Your task to perform on an android device: What is the news today? Image 0: 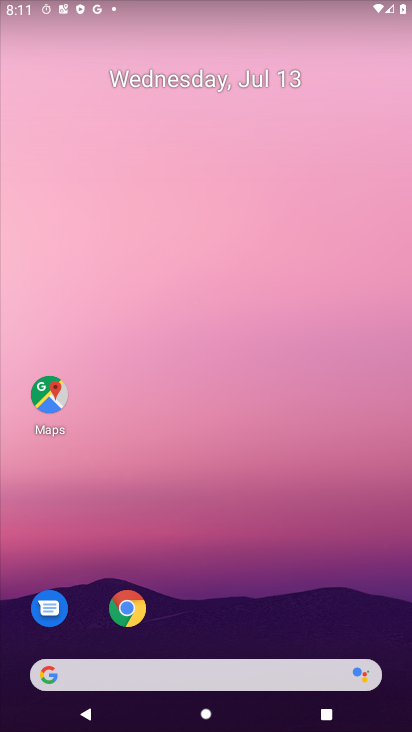
Step 0: drag from (292, 709) to (155, 286)
Your task to perform on an android device: What is the news today? Image 1: 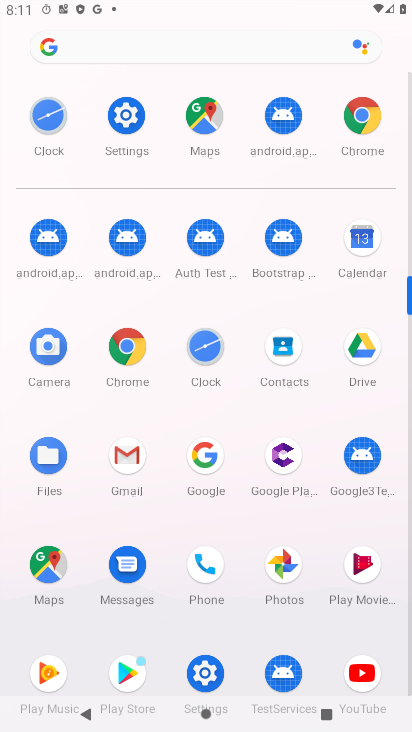
Step 1: click (125, 113)
Your task to perform on an android device: What is the news today? Image 2: 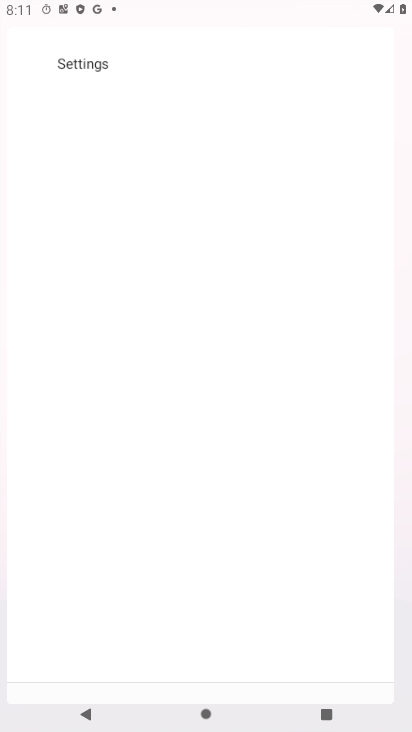
Step 2: click (127, 115)
Your task to perform on an android device: What is the news today? Image 3: 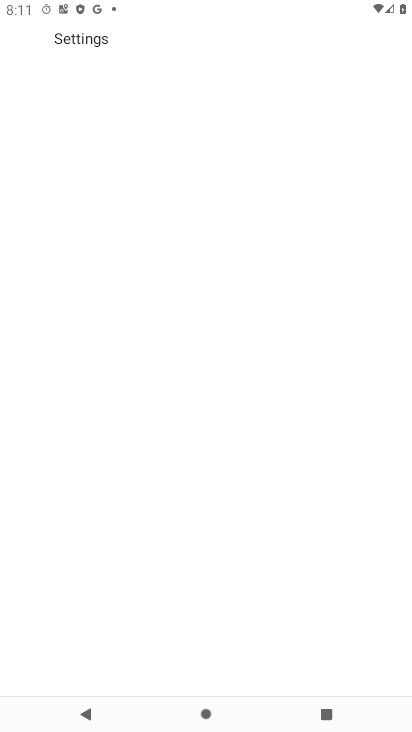
Step 3: click (128, 116)
Your task to perform on an android device: What is the news today? Image 4: 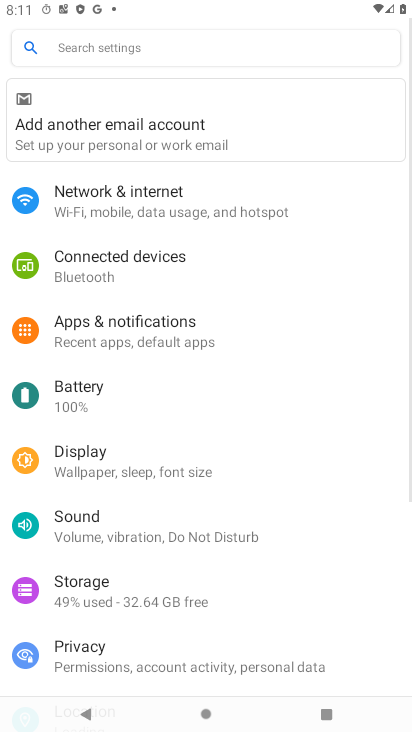
Step 4: drag from (131, 100) to (131, 427)
Your task to perform on an android device: What is the news today? Image 5: 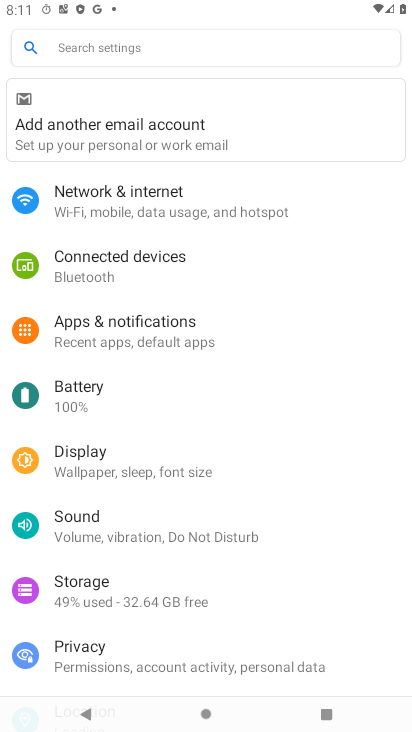
Step 5: press back button
Your task to perform on an android device: What is the news today? Image 6: 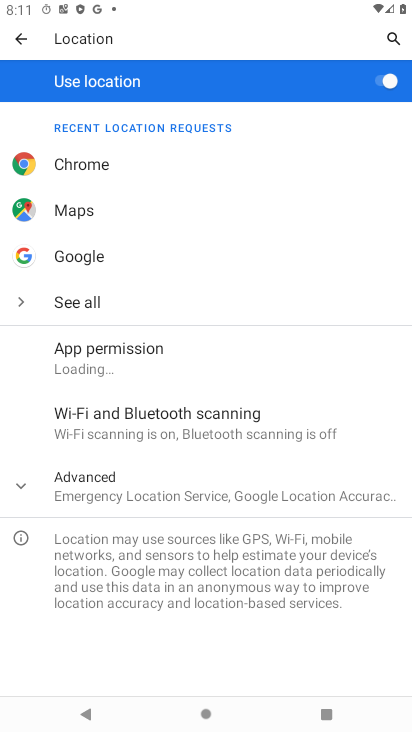
Step 6: click (13, 39)
Your task to perform on an android device: What is the news today? Image 7: 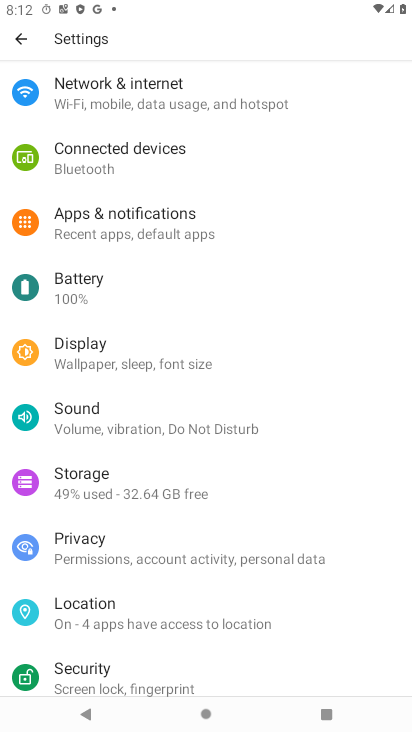
Step 7: click (16, 32)
Your task to perform on an android device: What is the news today? Image 8: 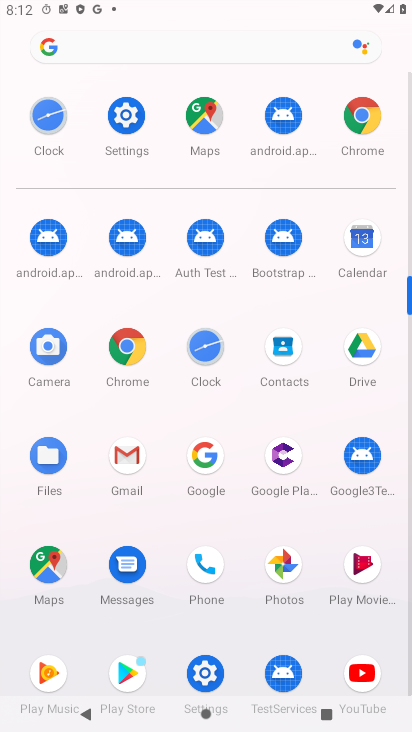
Step 8: click (359, 108)
Your task to perform on an android device: What is the news today? Image 9: 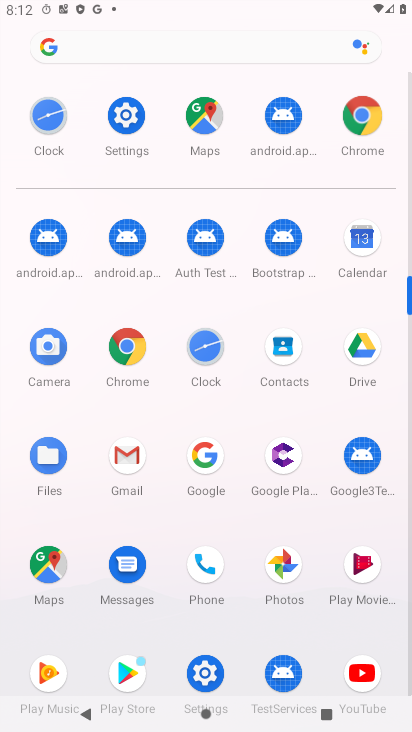
Step 9: click (358, 125)
Your task to perform on an android device: What is the news today? Image 10: 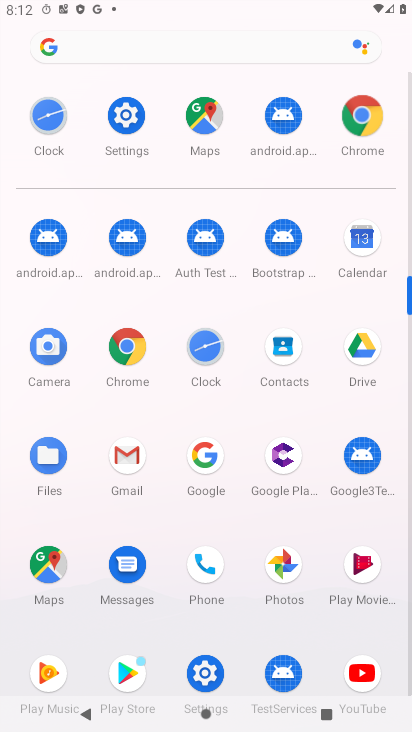
Step 10: click (352, 127)
Your task to perform on an android device: What is the news today? Image 11: 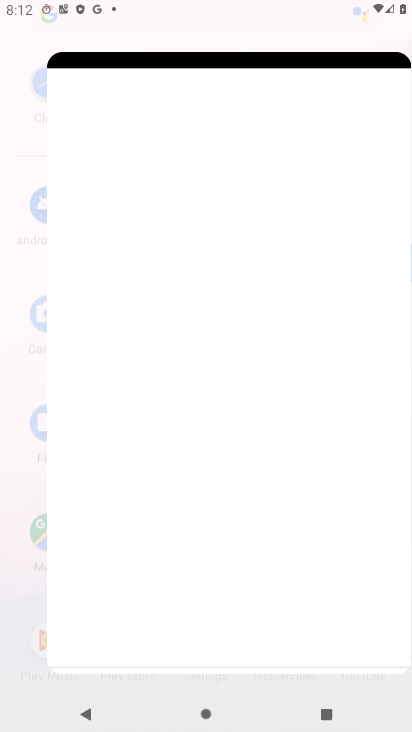
Step 11: click (346, 123)
Your task to perform on an android device: What is the news today? Image 12: 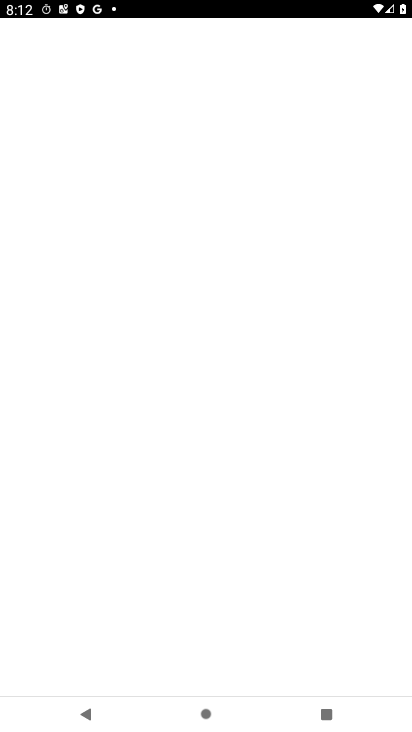
Step 12: click (346, 123)
Your task to perform on an android device: What is the news today? Image 13: 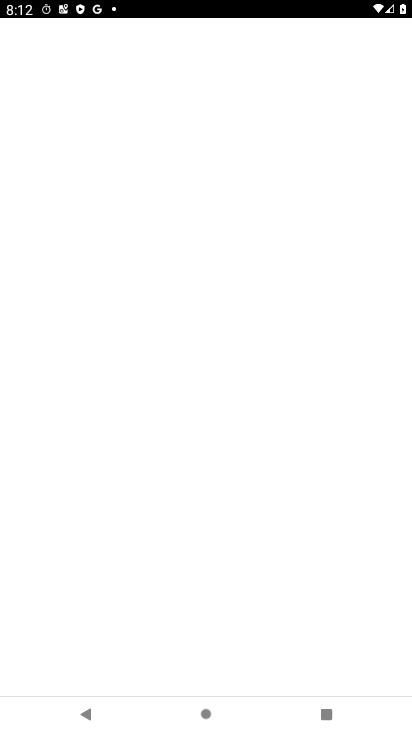
Step 13: click (344, 123)
Your task to perform on an android device: What is the news today? Image 14: 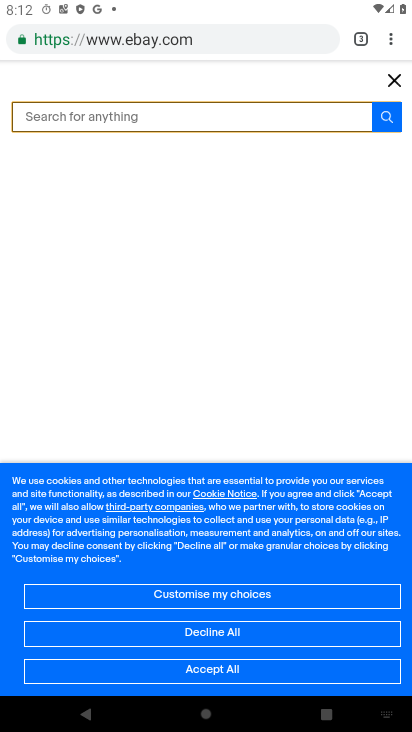
Step 14: drag from (395, 39) to (283, 68)
Your task to perform on an android device: What is the news today? Image 15: 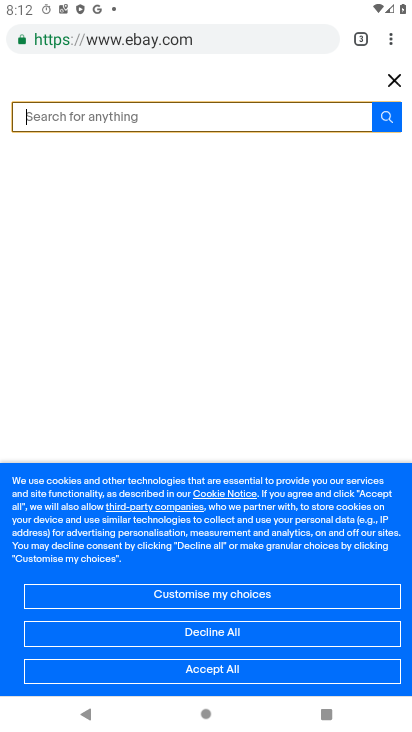
Step 15: click (262, 76)
Your task to perform on an android device: What is the news today? Image 16: 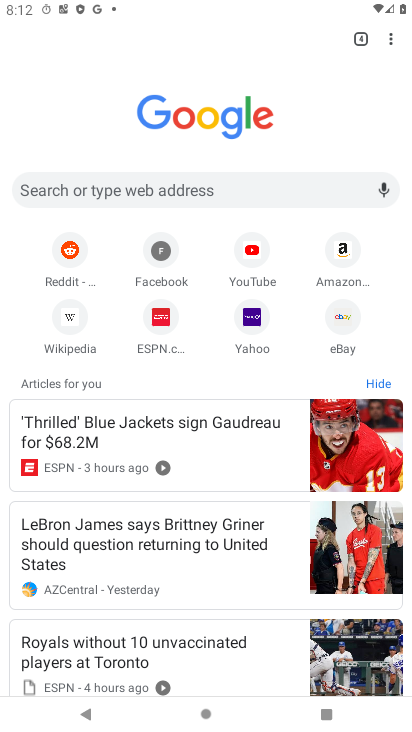
Step 16: task complete